Your task to perform on an android device: Clear the shopping cart on newegg.com. Image 0: 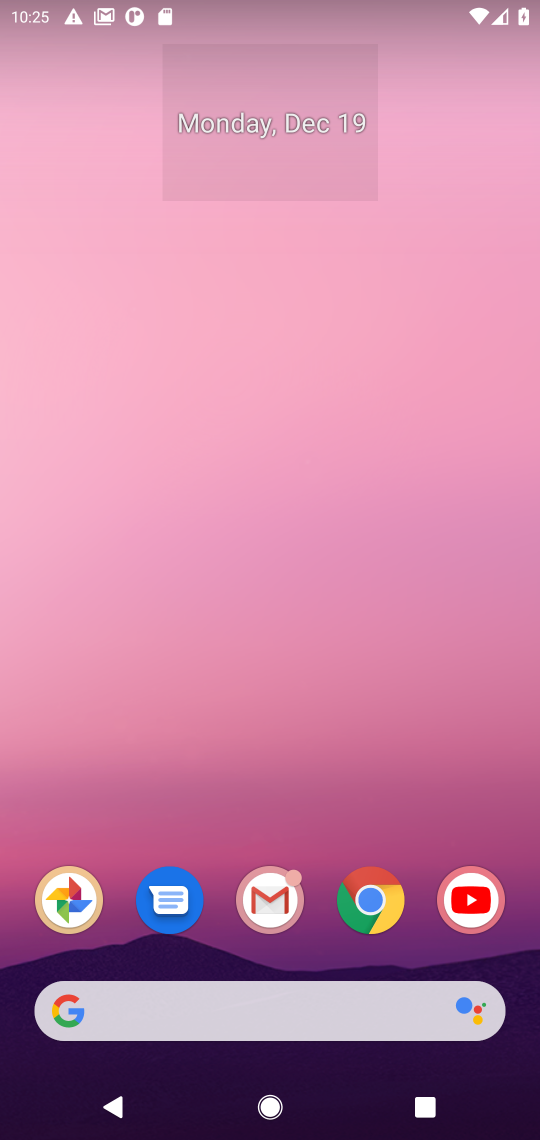
Step 0: click (392, 896)
Your task to perform on an android device: Clear the shopping cart on newegg.com. Image 1: 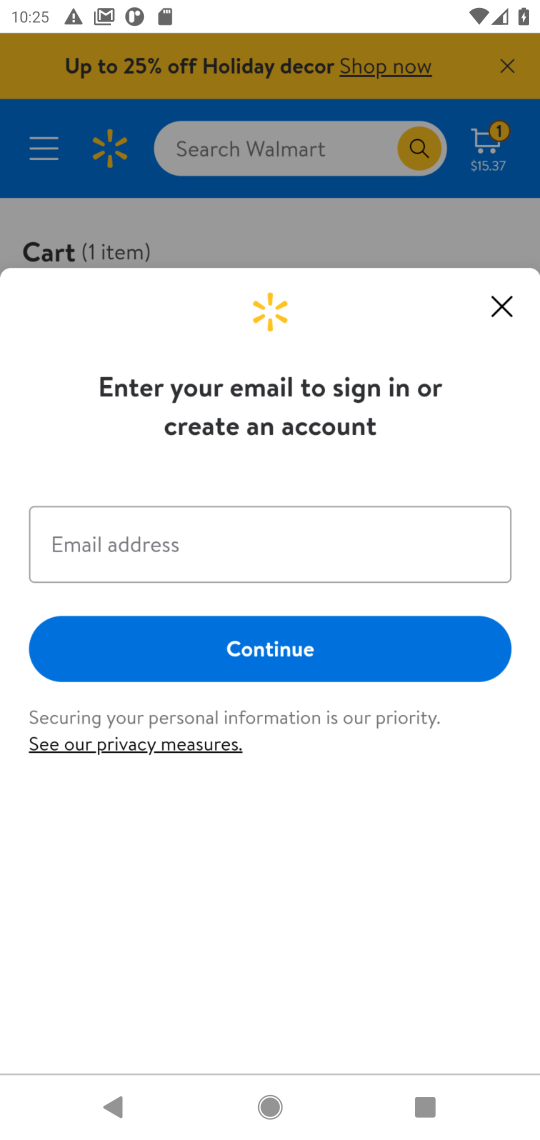
Step 1: click (497, 306)
Your task to perform on an android device: Clear the shopping cart on newegg.com. Image 2: 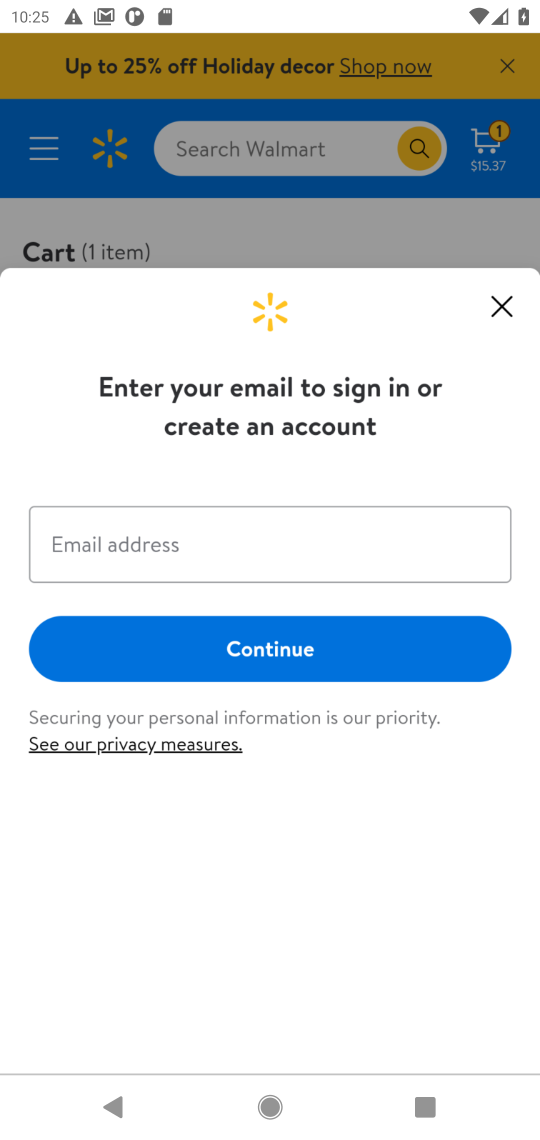
Step 2: click (497, 306)
Your task to perform on an android device: Clear the shopping cart on newegg.com. Image 3: 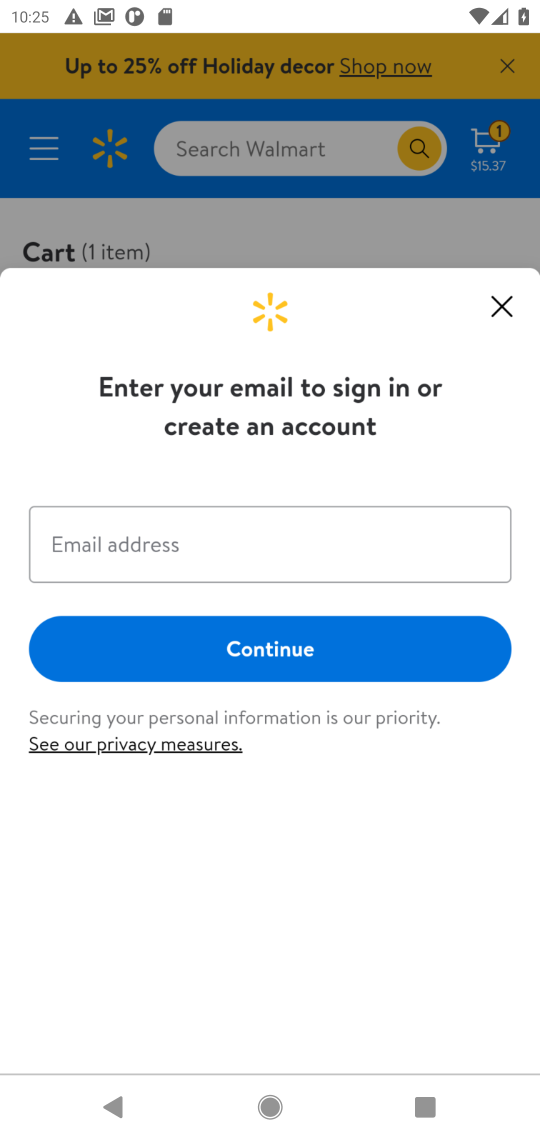
Step 3: click (318, 148)
Your task to perform on an android device: Clear the shopping cart on newegg.com. Image 4: 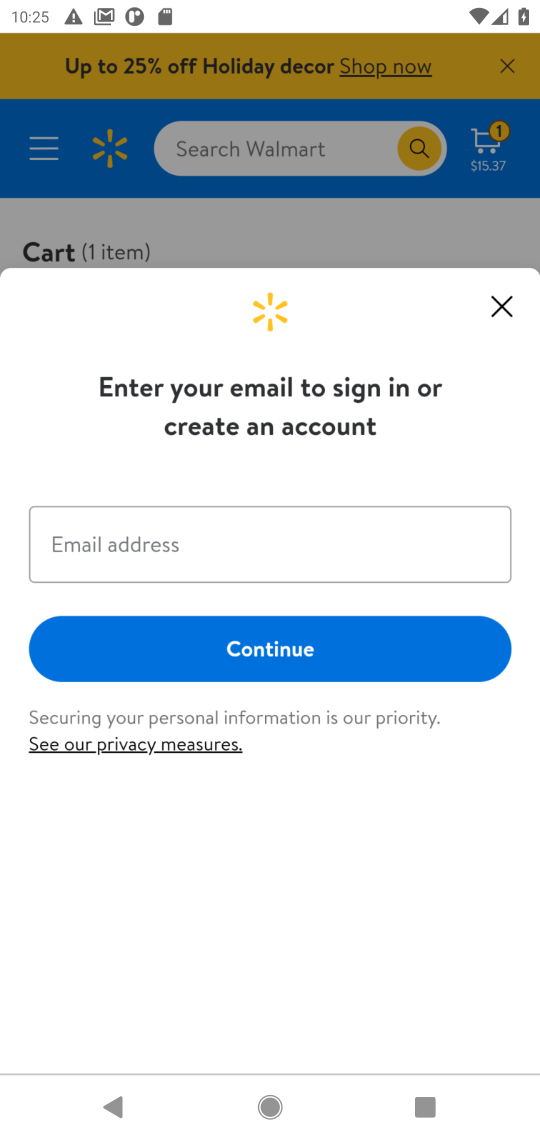
Step 4: click (211, 60)
Your task to perform on an android device: Clear the shopping cart on newegg.com. Image 5: 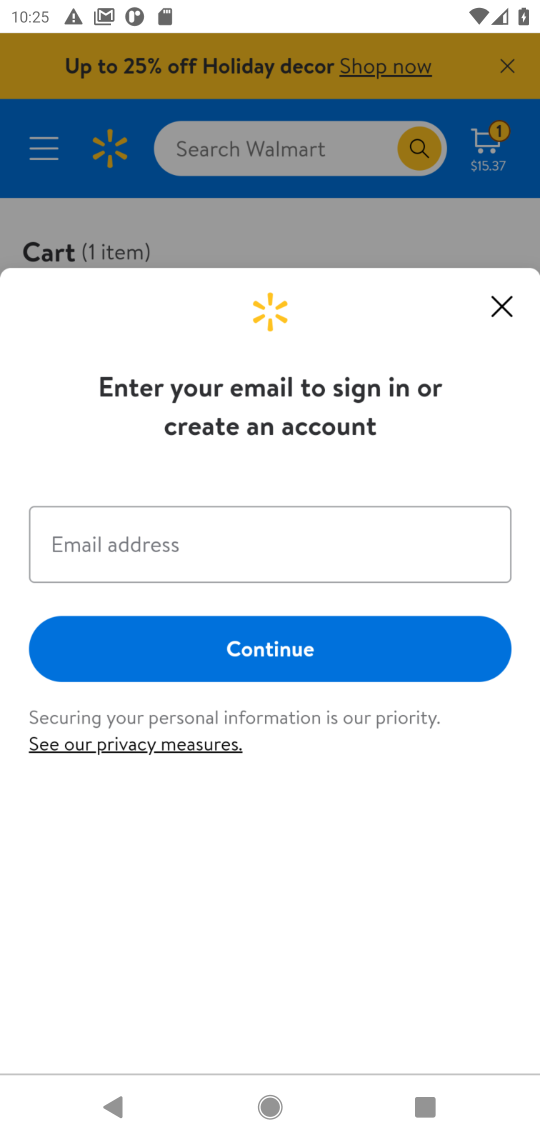
Step 5: click (351, 70)
Your task to perform on an android device: Clear the shopping cart on newegg.com. Image 6: 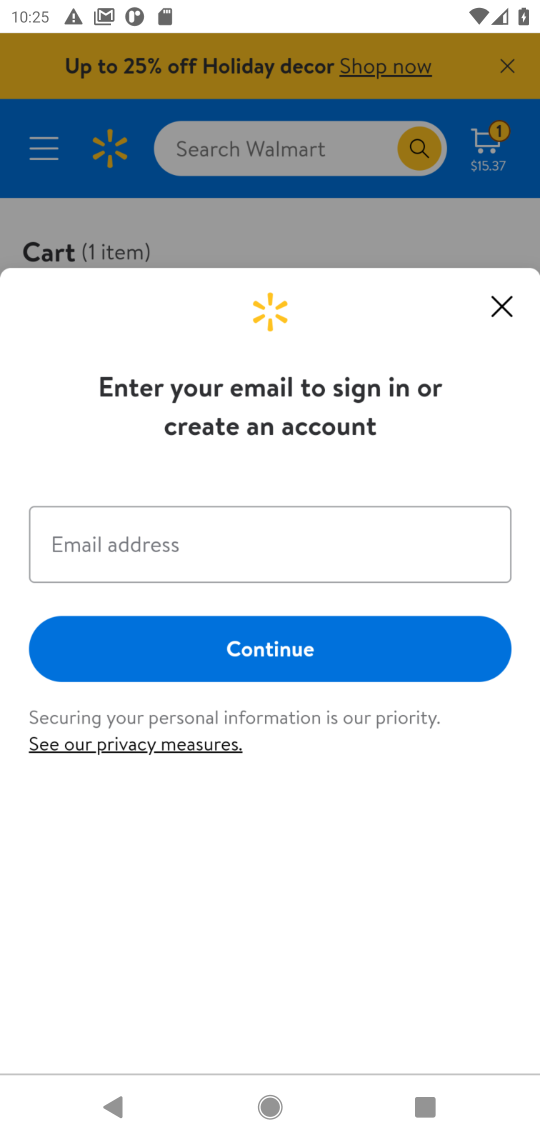
Step 6: click (500, 309)
Your task to perform on an android device: Clear the shopping cart on newegg.com. Image 7: 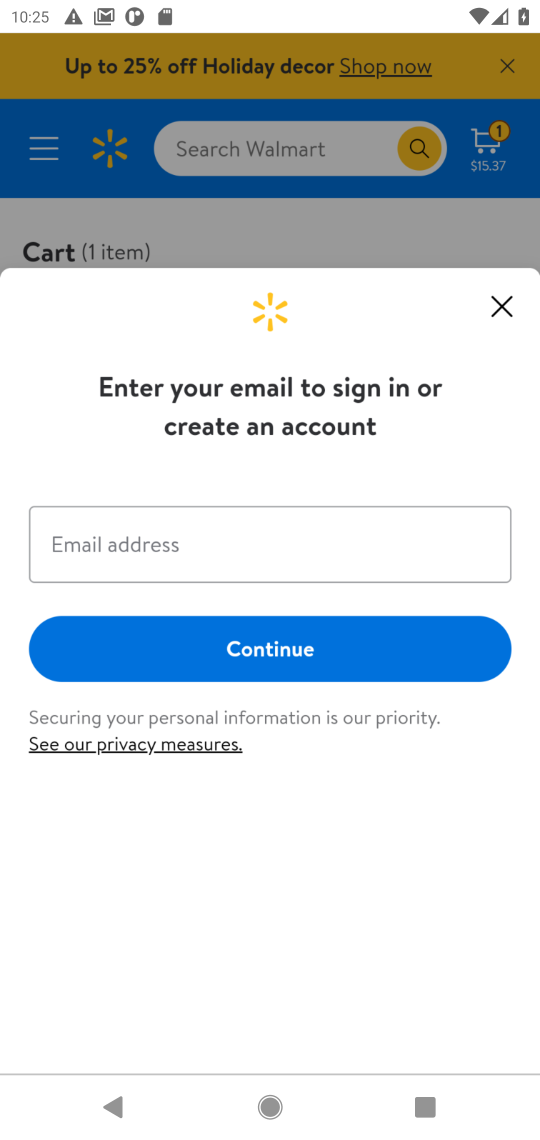
Step 7: click (156, 544)
Your task to perform on an android device: Clear the shopping cart on newegg.com. Image 8: 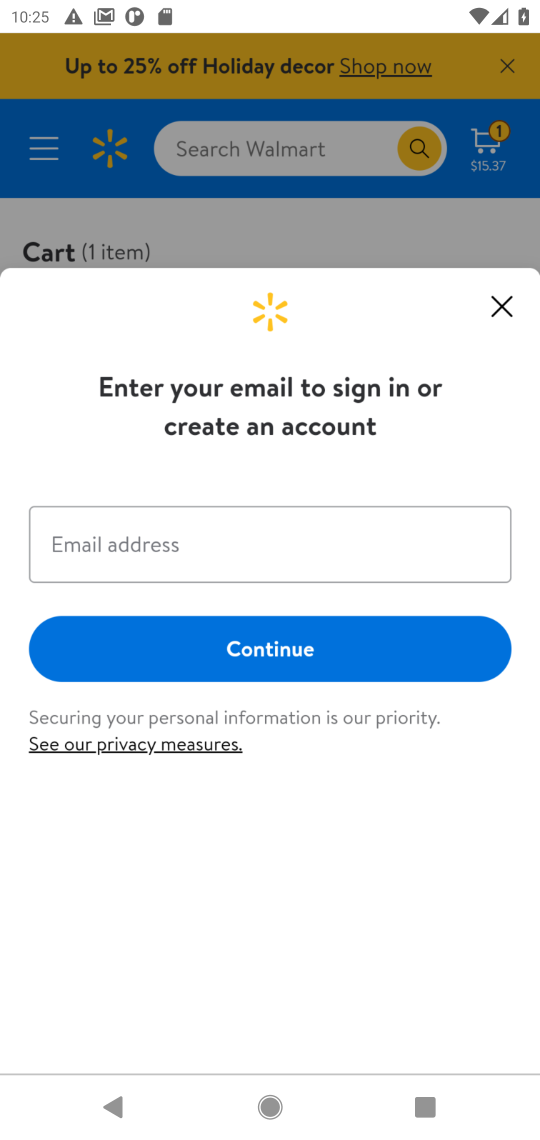
Step 8: task complete